Your task to perform on an android device: Go to Amazon Image 0: 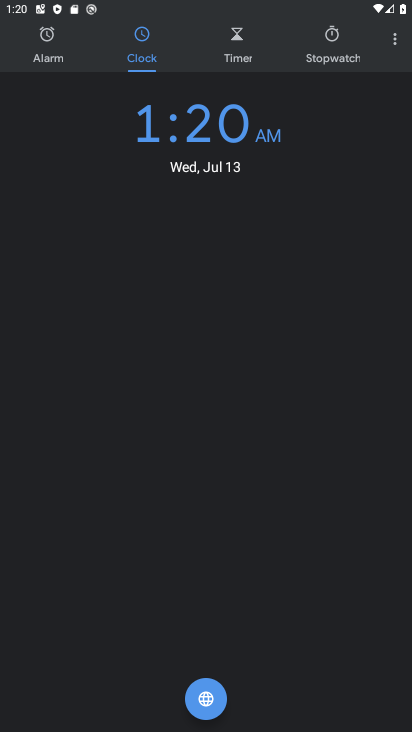
Step 0: press home button
Your task to perform on an android device: Go to Amazon Image 1: 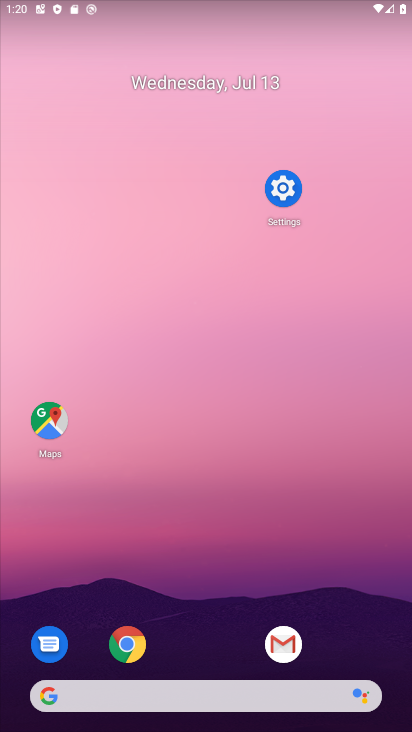
Step 1: click (127, 641)
Your task to perform on an android device: Go to Amazon Image 2: 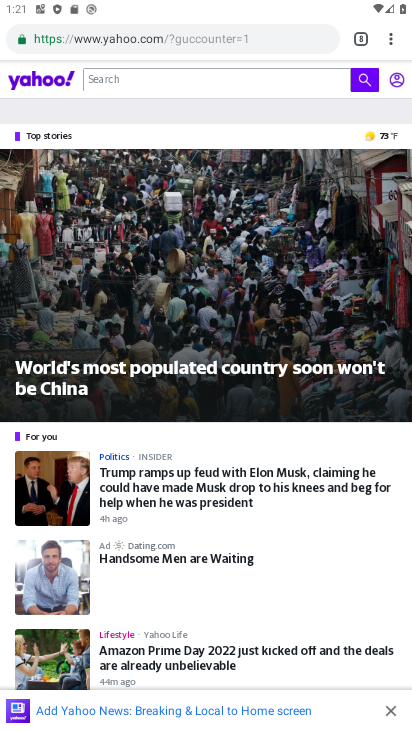
Step 2: click (359, 40)
Your task to perform on an android device: Go to Amazon Image 3: 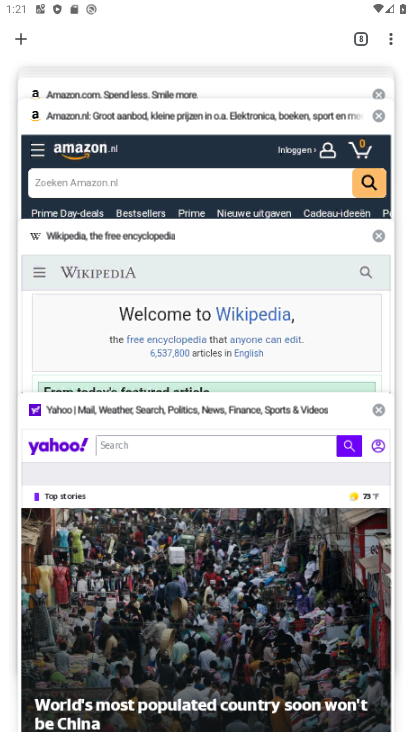
Step 3: click (23, 40)
Your task to perform on an android device: Go to Amazon Image 4: 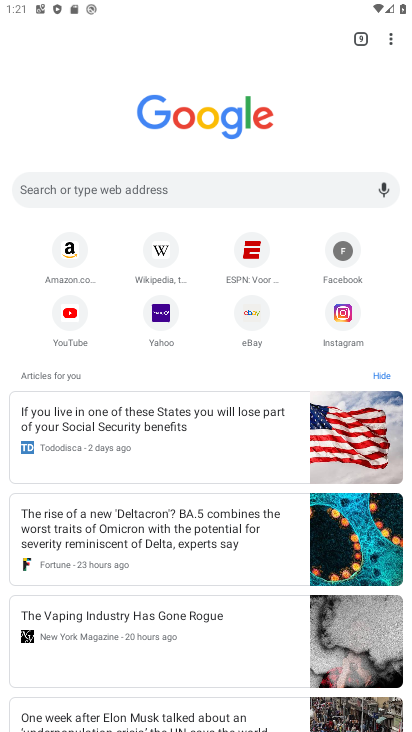
Step 4: click (71, 256)
Your task to perform on an android device: Go to Amazon Image 5: 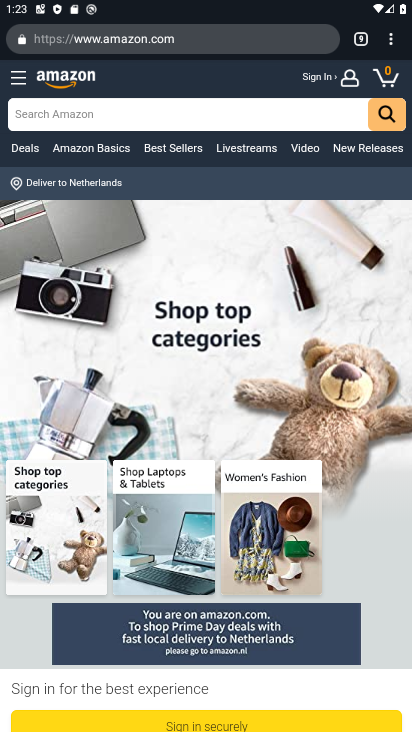
Step 5: task complete